Your task to perform on an android device: Search for sushi restaurants on Maps Image 0: 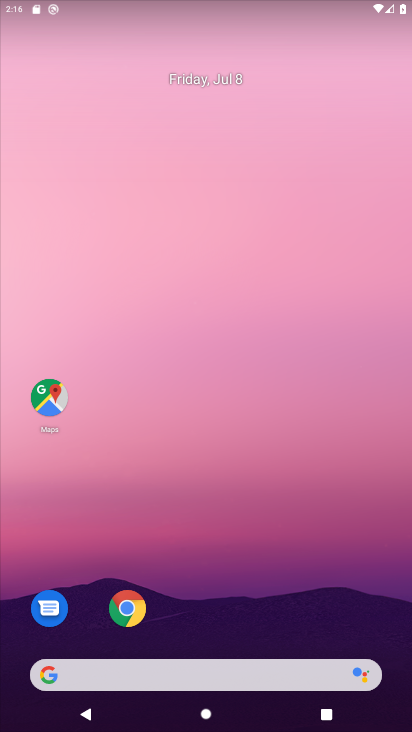
Step 0: drag from (210, 618) to (143, 139)
Your task to perform on an android device: Search for sushi restaurants on Maps Image 1: 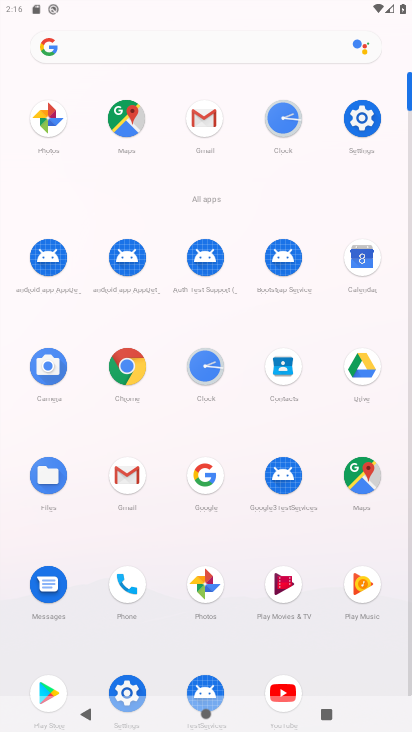
Step 1: click (129, 117)
Your task to perform on an android device: Search for sushi restaurants on Maps Image 2: 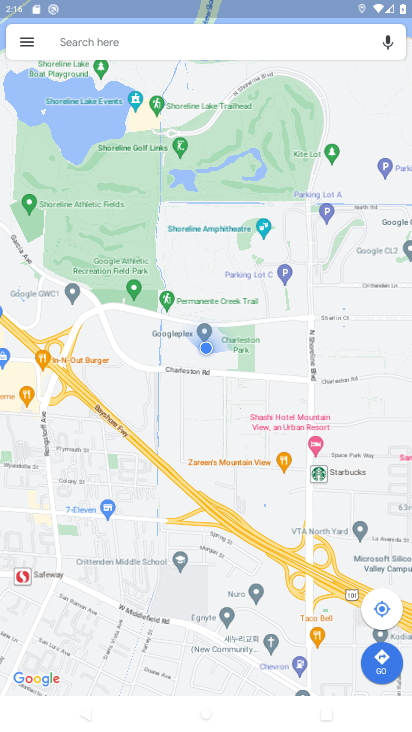
Step 2: click (134, 37)
Your task to perform on an android device: Search for sushi restaurants on Maps Image 3: 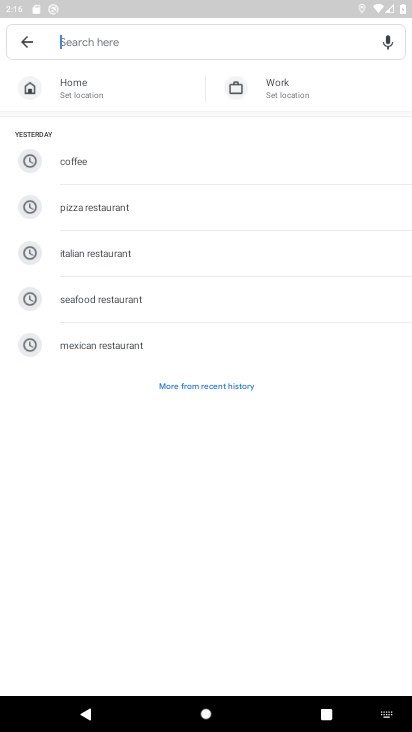
Step 3: type "sushi restaurants  "
Your task to perform on an android device: Search for sushi restaurants on Maps Image 4: 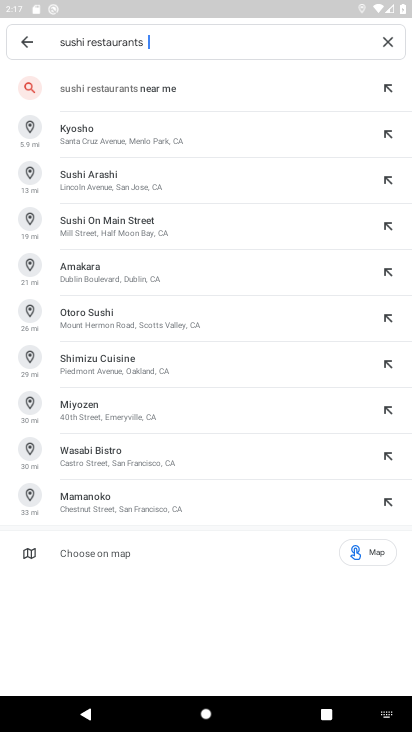
Step 4: click (139, 81)
Your task to perform on an android device: Search for sushi restaurants on Maps Image 5: 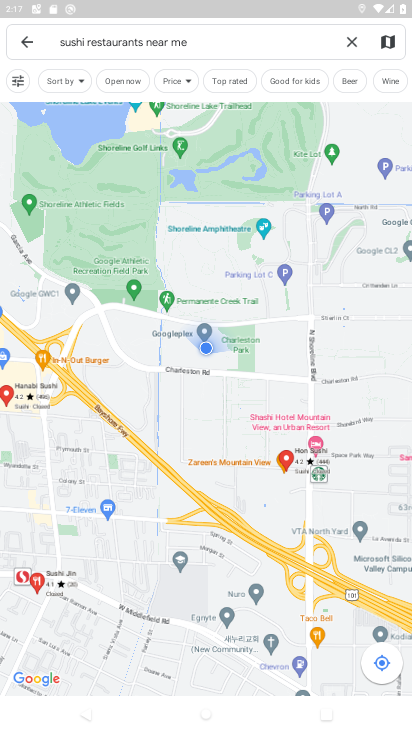
Step 5: task complete